Your task to perform on an android device: Open Chrome and go to settings Image 0: 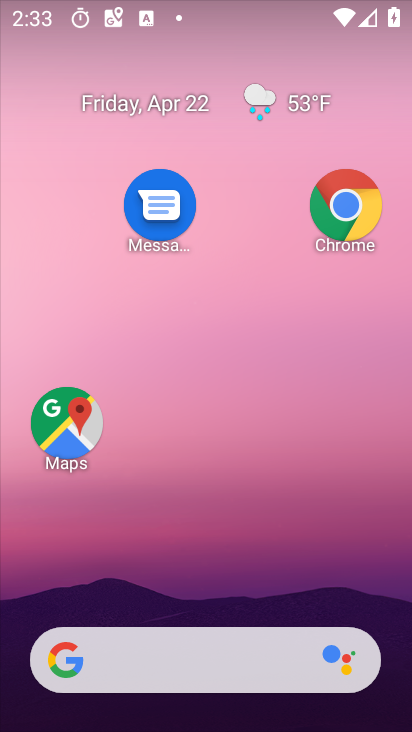
Step 0: click (348, 197)
Your task to perform on an android device: Open Chrome and go to settings Image 1: 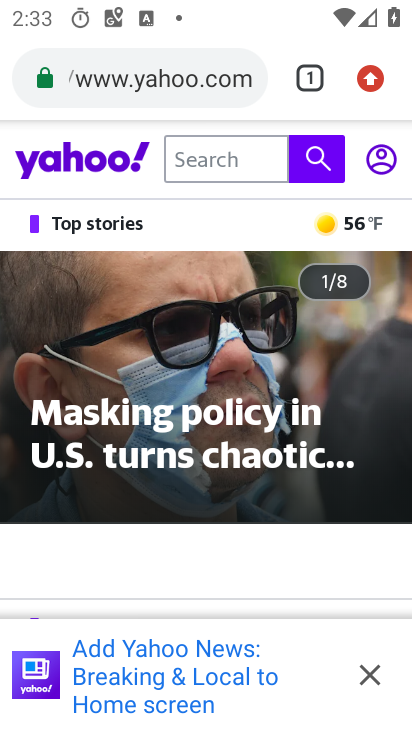
Step 1: click (367, 81)
Your task to perform on an android device: Open Chrome and go to settings Image 2: 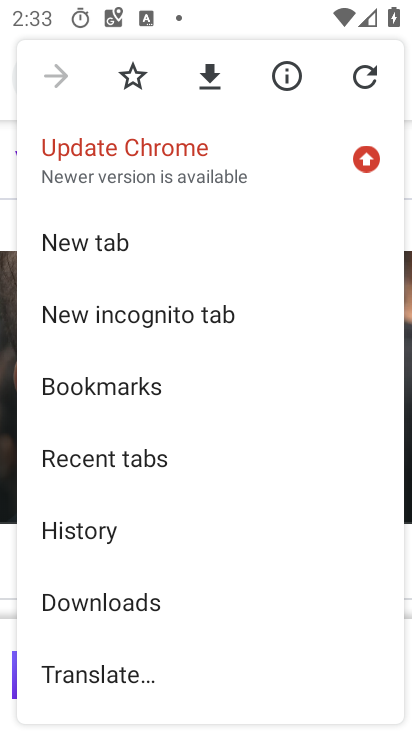
Step 2: drag from (108, 640) to (131, 358)
Your task to perform on an android device: Open Chrome and go to settings Image 3: 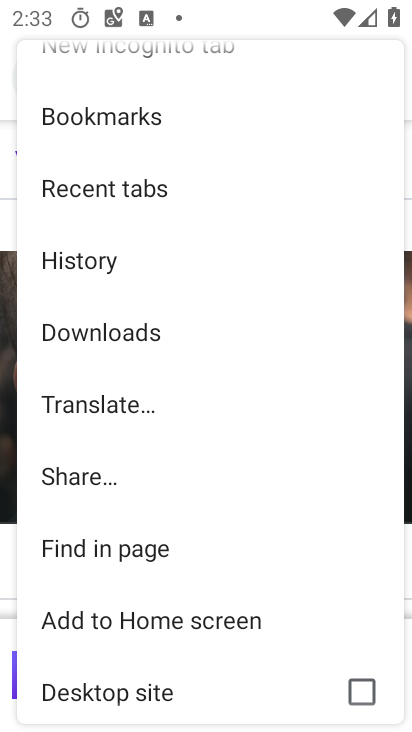
Step 3: drag from (129, 625) to (130, 264)
Your task to perform on an android device: Open Chrome and go to settings Image 4: 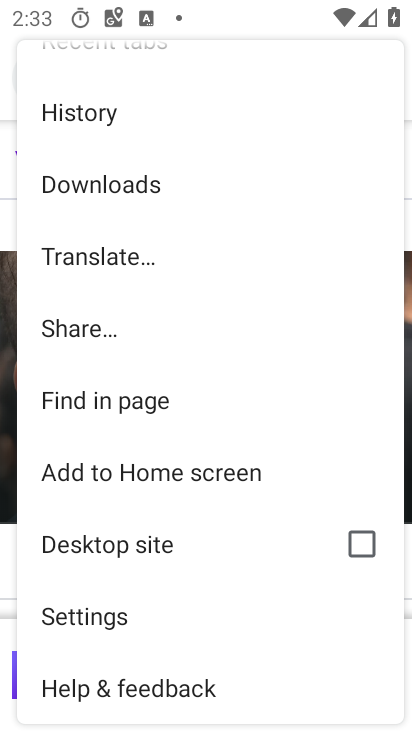
Step 4: click (79, 615)
Your task to perform on an android device: Open Chrome and go to settings Image 5: 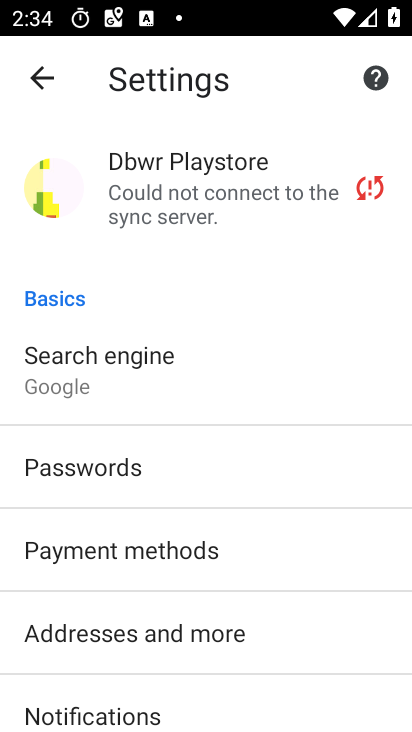
Step 5: task complete